Your task to perform on an android device: Open the map Image 0: 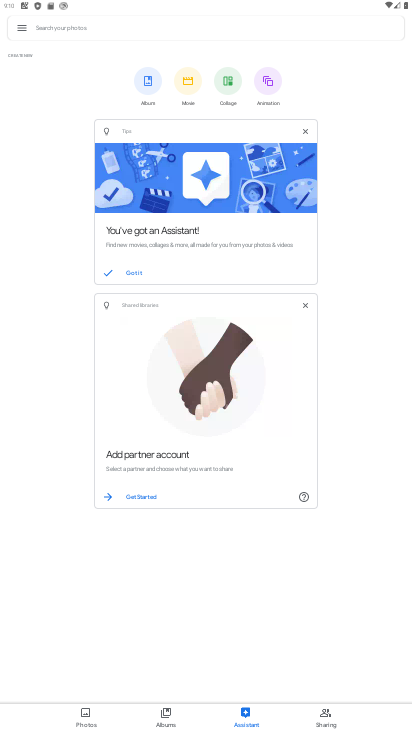
Step 0: press home button
Your task to perform on an android device: Open the map Image 1: 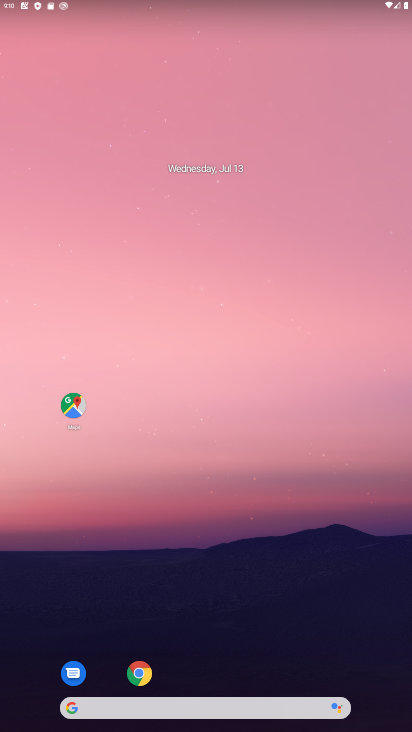
Step 1: click (68, 406)
Your task to perform on an android device: Open the map Image 2: 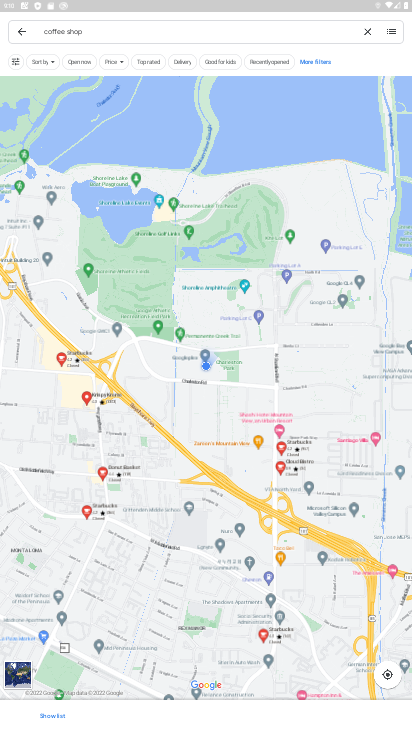
Step 2: task complete